Your task to perform on an android device: Search for Italian restaurants on Maps Image 0: 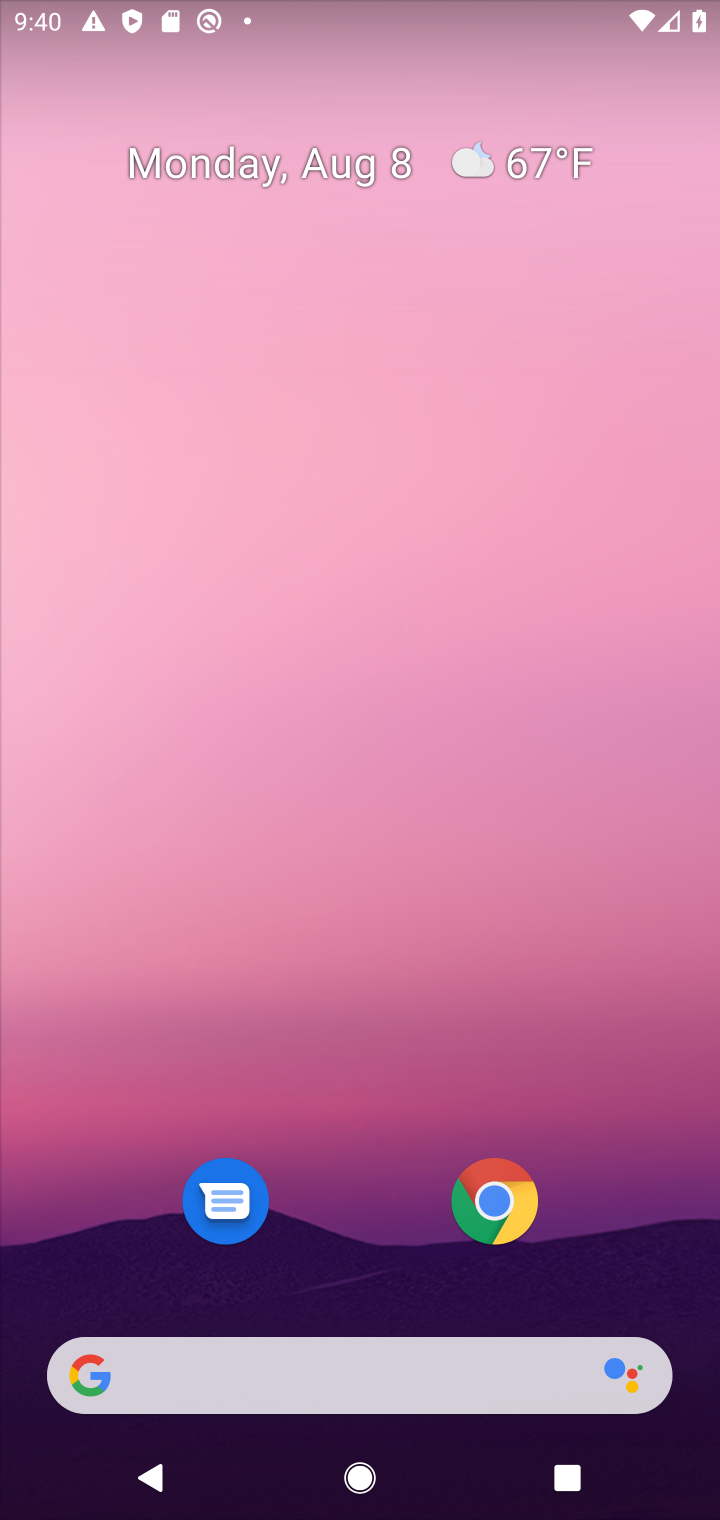
Step 0: press home button
Your task to perform on an android device: Search for Italian restaurants on Maps Image 1: 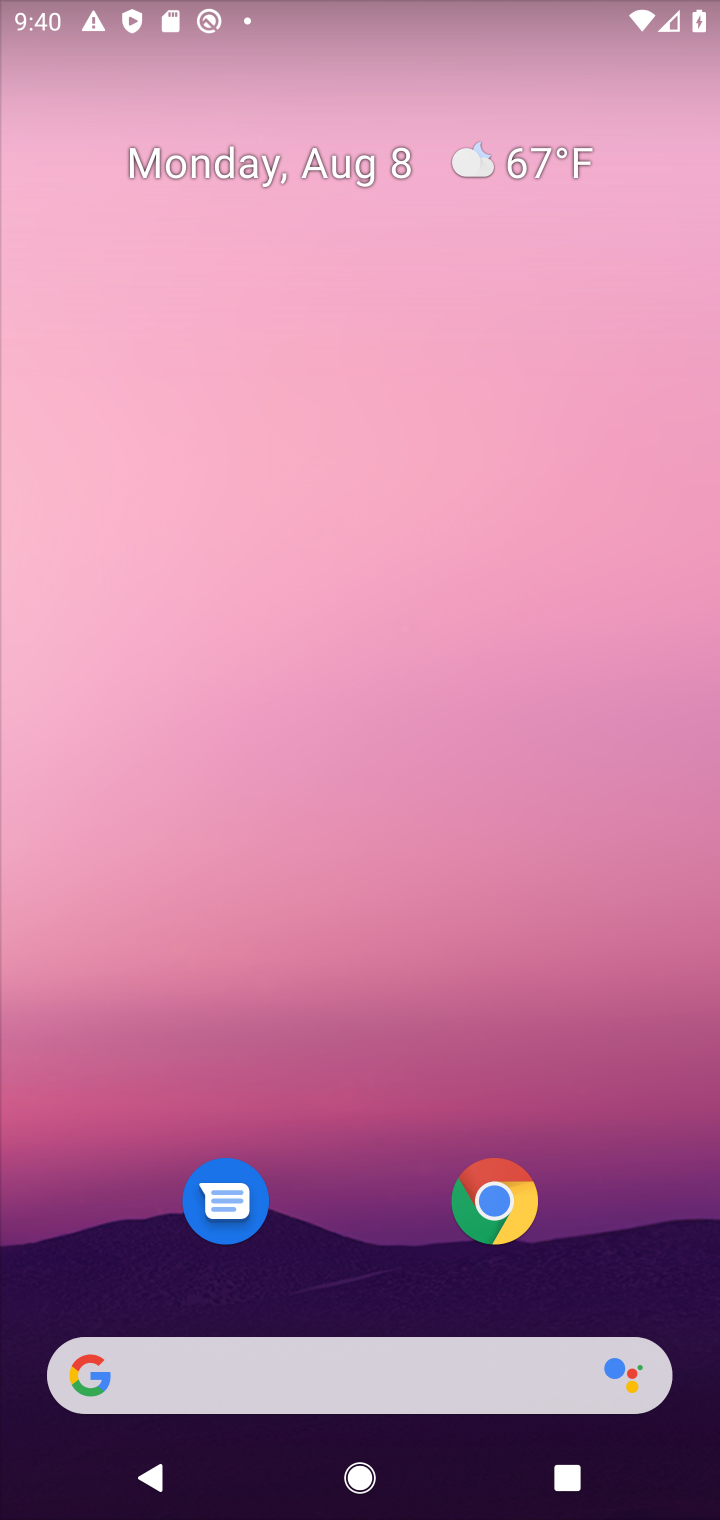
Step 1: drag from (346, 1234) to (365, 367)
Your task to perform on an android device: Search for Italian restaurants on Maps Image 2: 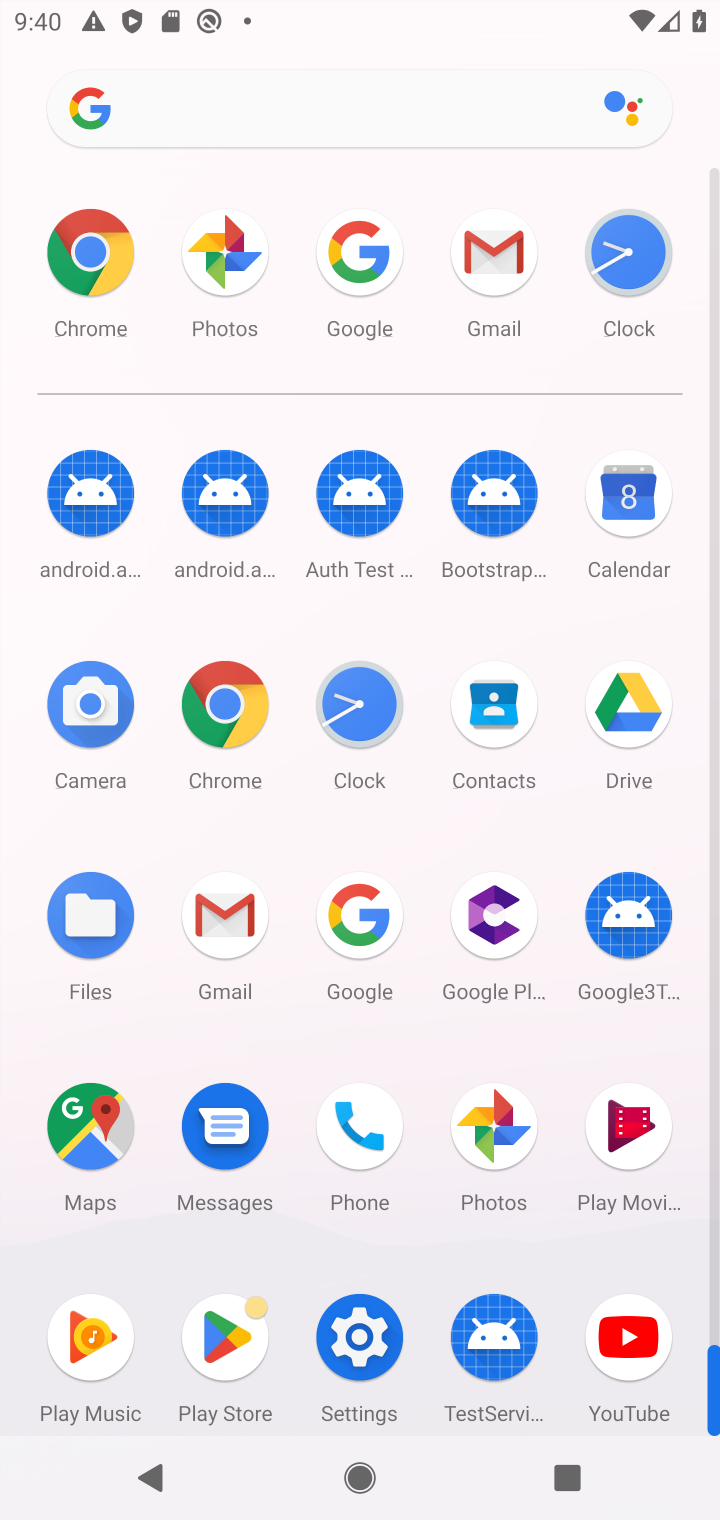
Step 2: click (83, 1123)
Your task to perform on an android device: Search for Italian restaurants on Maps Image 3: 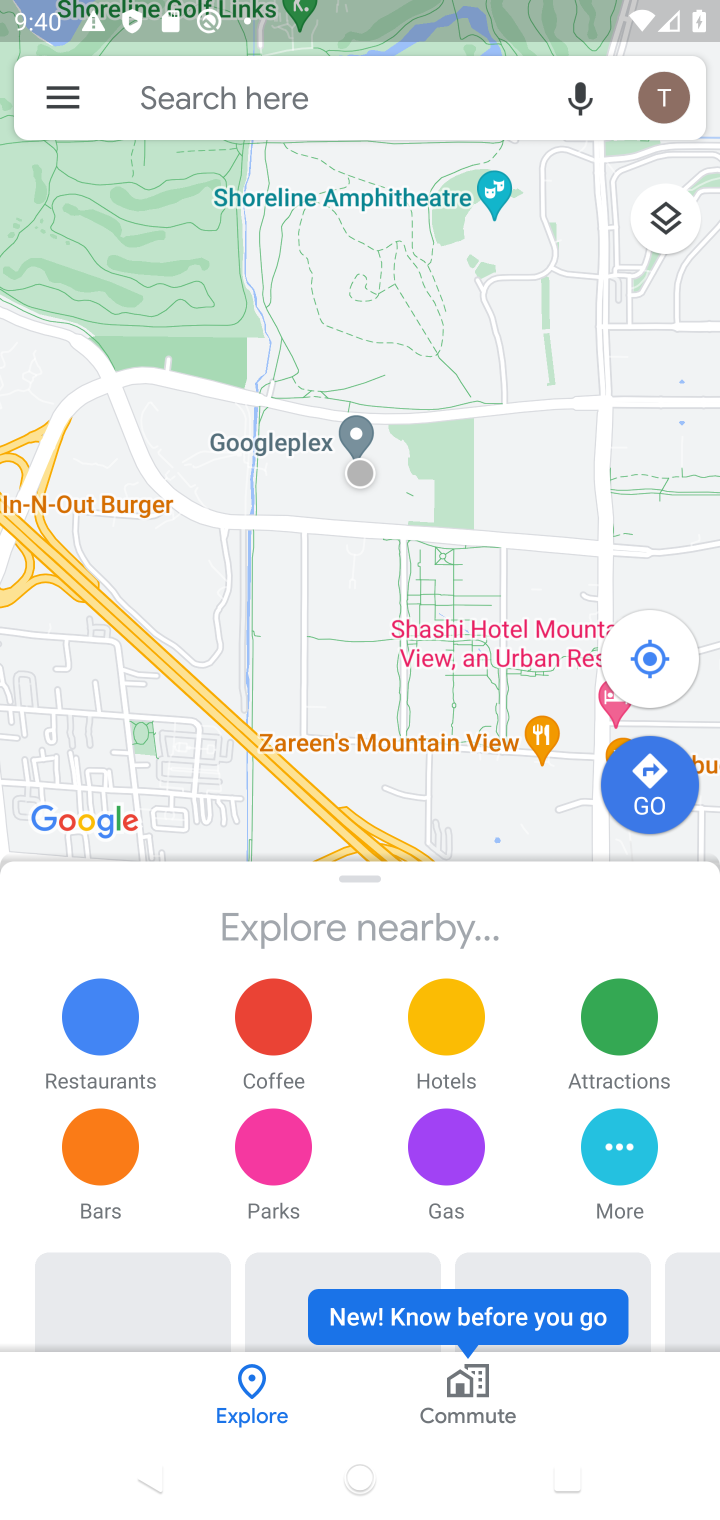
Step 3: click (374, 88)
Your task to perform on an android device: Search for Italian restaurants on Maps Image 4: 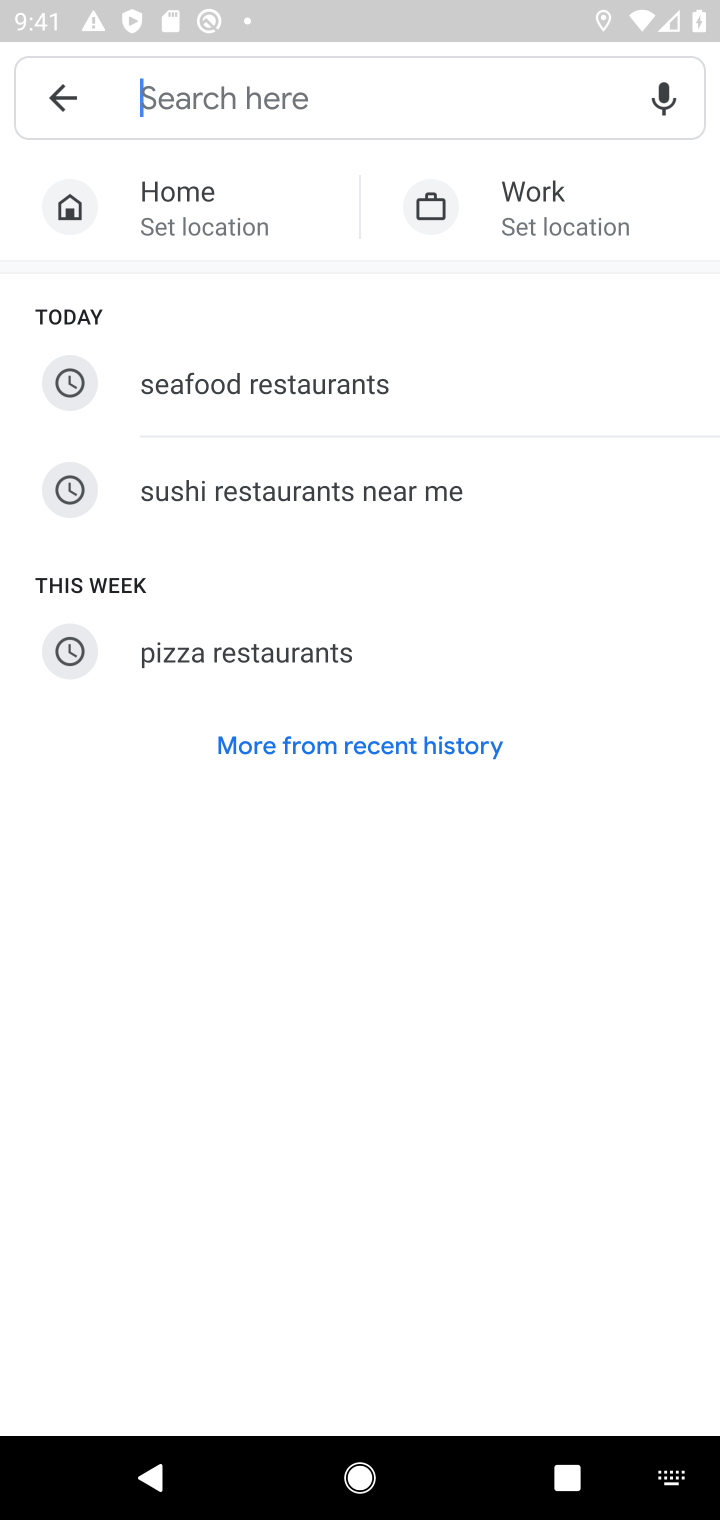
Step 4: type "italian restaurants"
Your task to perform on an android device: Search for Italian restaurants on Maps Image 5: 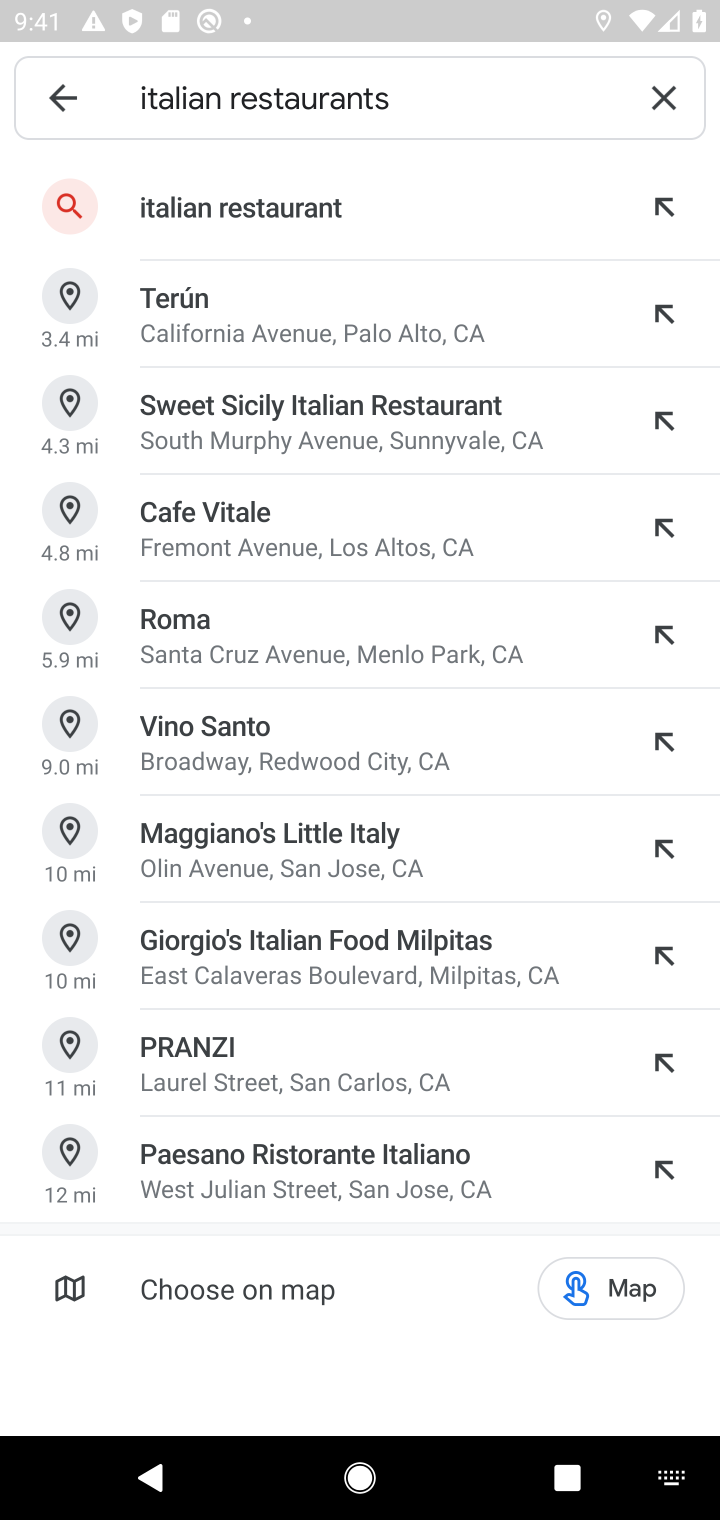
Step 5: click (366, 206)
Your task to perform on an android device: Search for Italian restaurants on Maps Image 6: 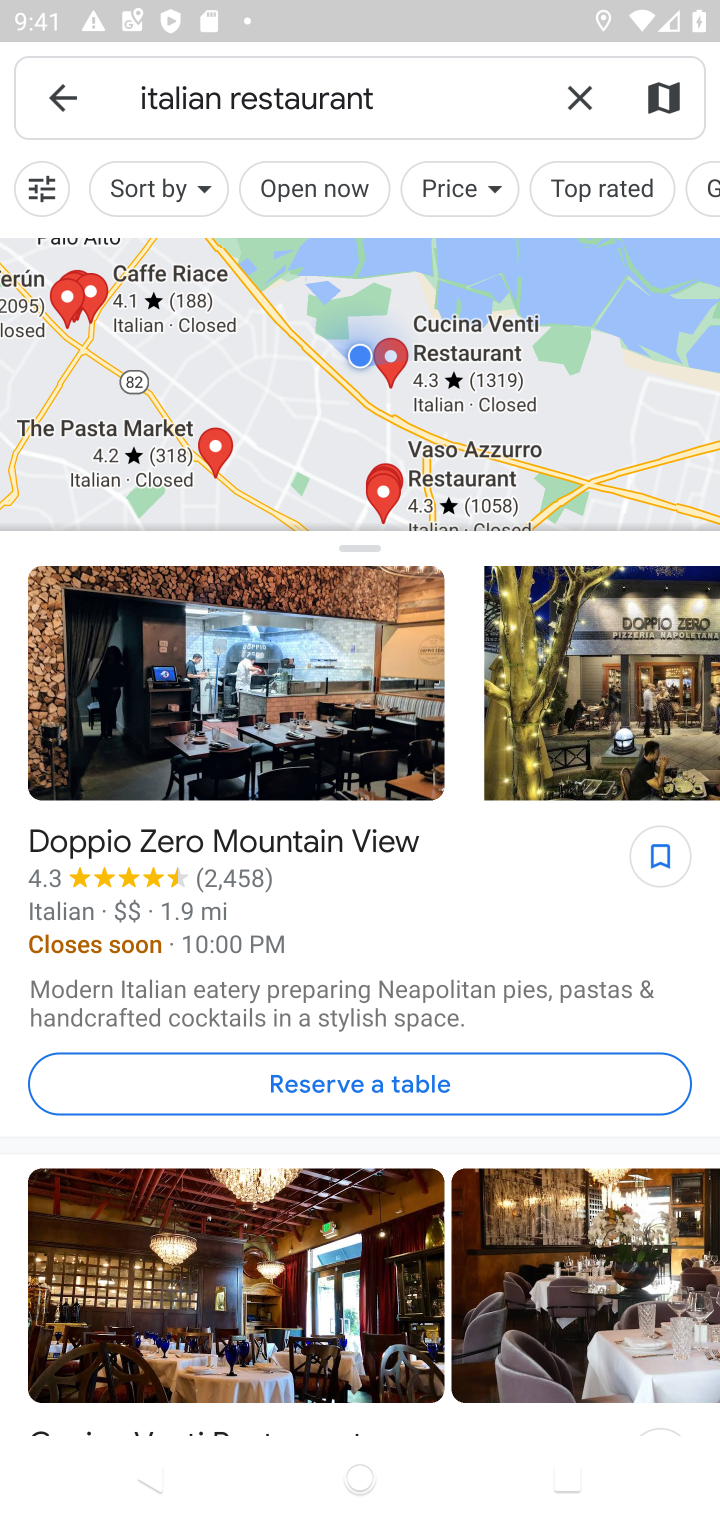
Step 6: task complete